Your task to perform on an android device: uninstall "ZOOM Cloud Meetings" Image 0: 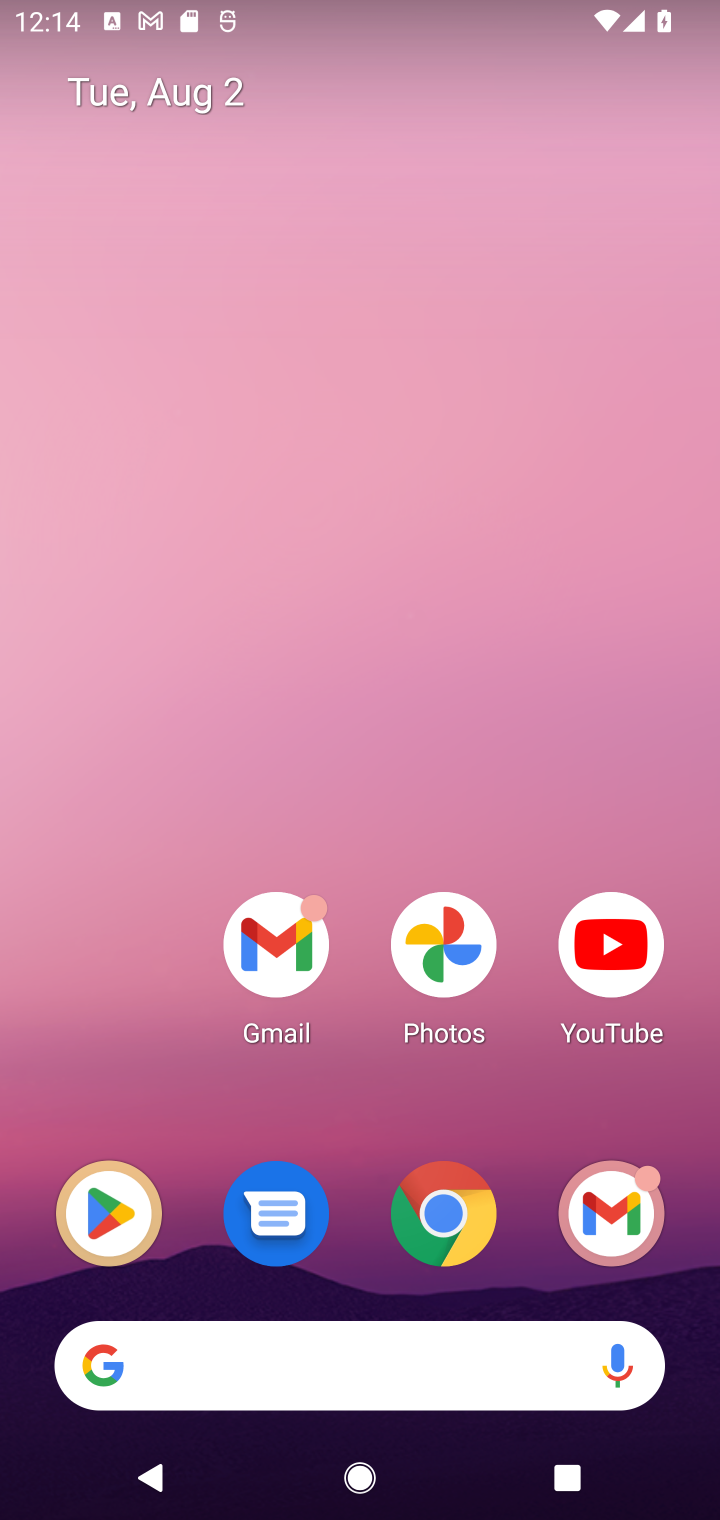
Step 0: click (126, 1213)
Your task to perform on an android device: uninstall "ZOOM Cloud Meetings" Image 1: 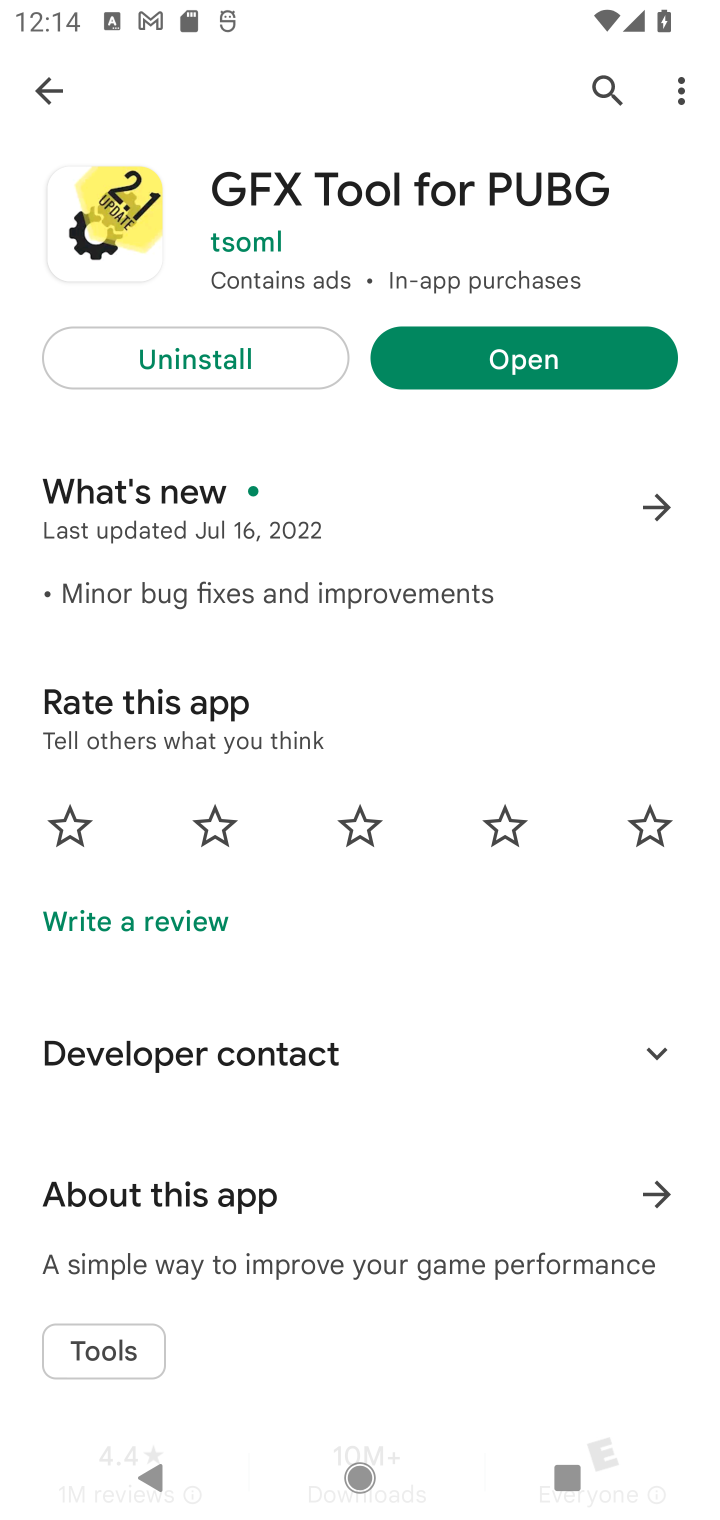
Step 1: click (52, 88)
Your task to perform on an android device: uninstall "ZOOM Cloud Meetings" Image 2: 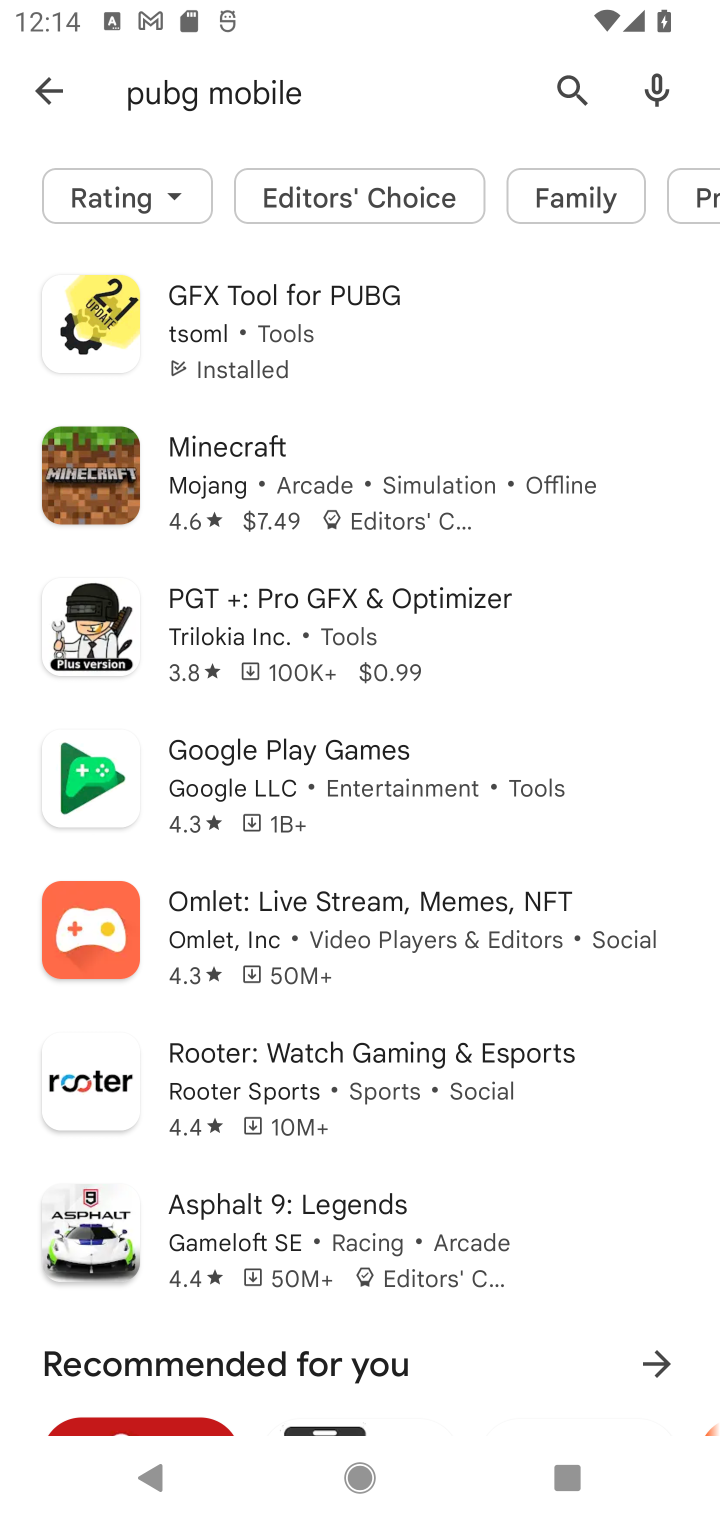
Step 2: click (52, 88)
Your task to perform on an android device: uninstall "ZOOM Cloud Meetings" Image 3: 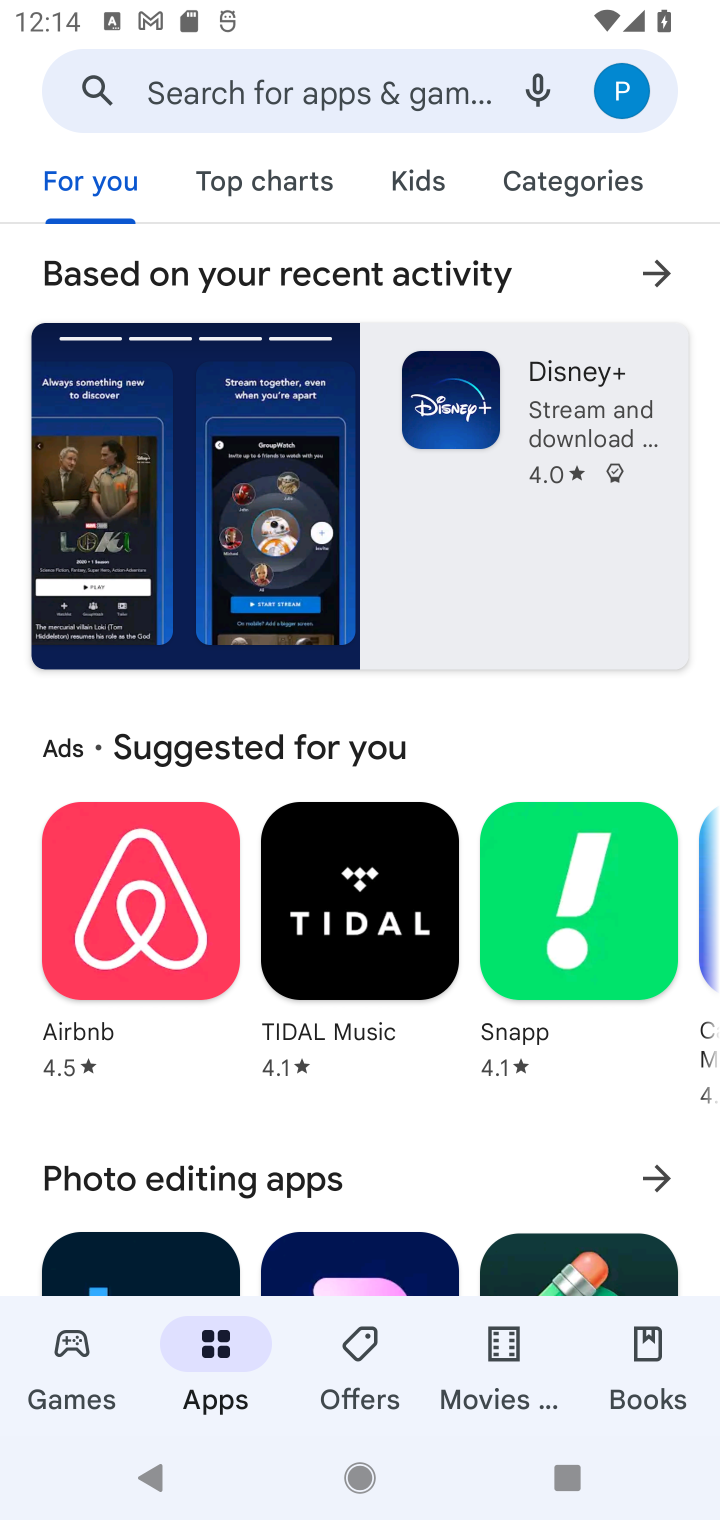
Step 3: click (256, 94)
Your task to perform on an android device: uninstall "ZOOM Cloud Meetings" Image 4: 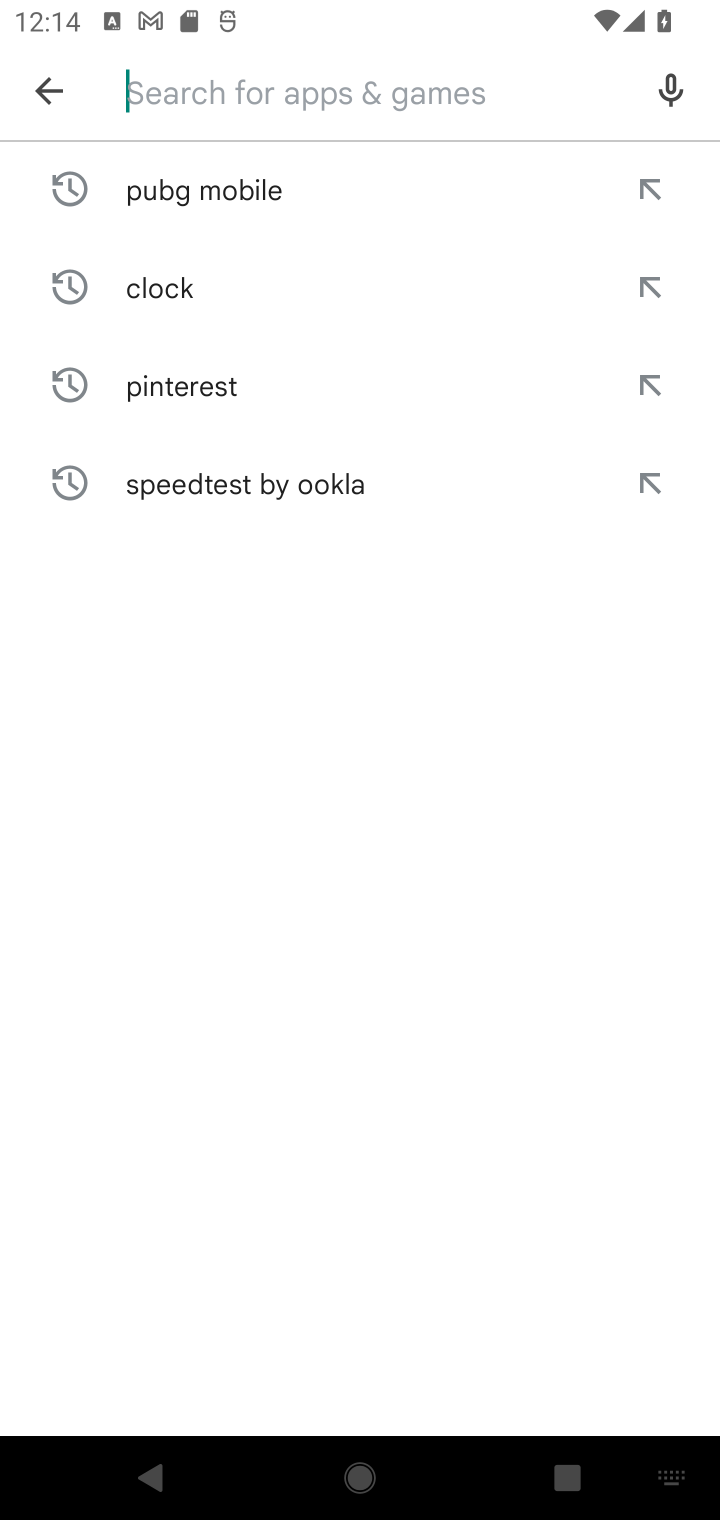
Step 4: type "ZOOM Cloud Meetings"
Your task to perform on an android device: uninstall "ZOOM Cloud Meetings" Image 5: 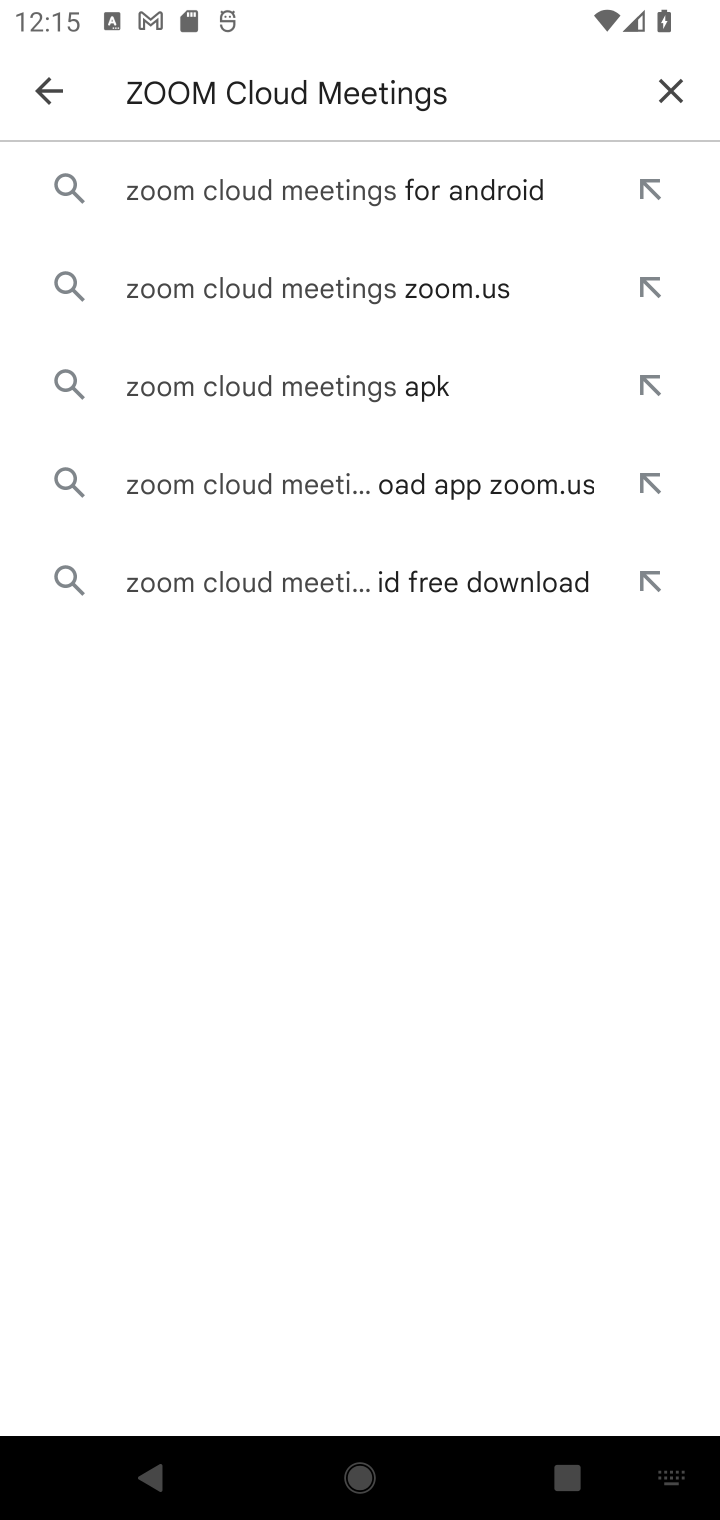
Step 5: click (351, 210)
Your task to perform on an android device: uninstall "ZOOM Cloud Meetings" Image 6: 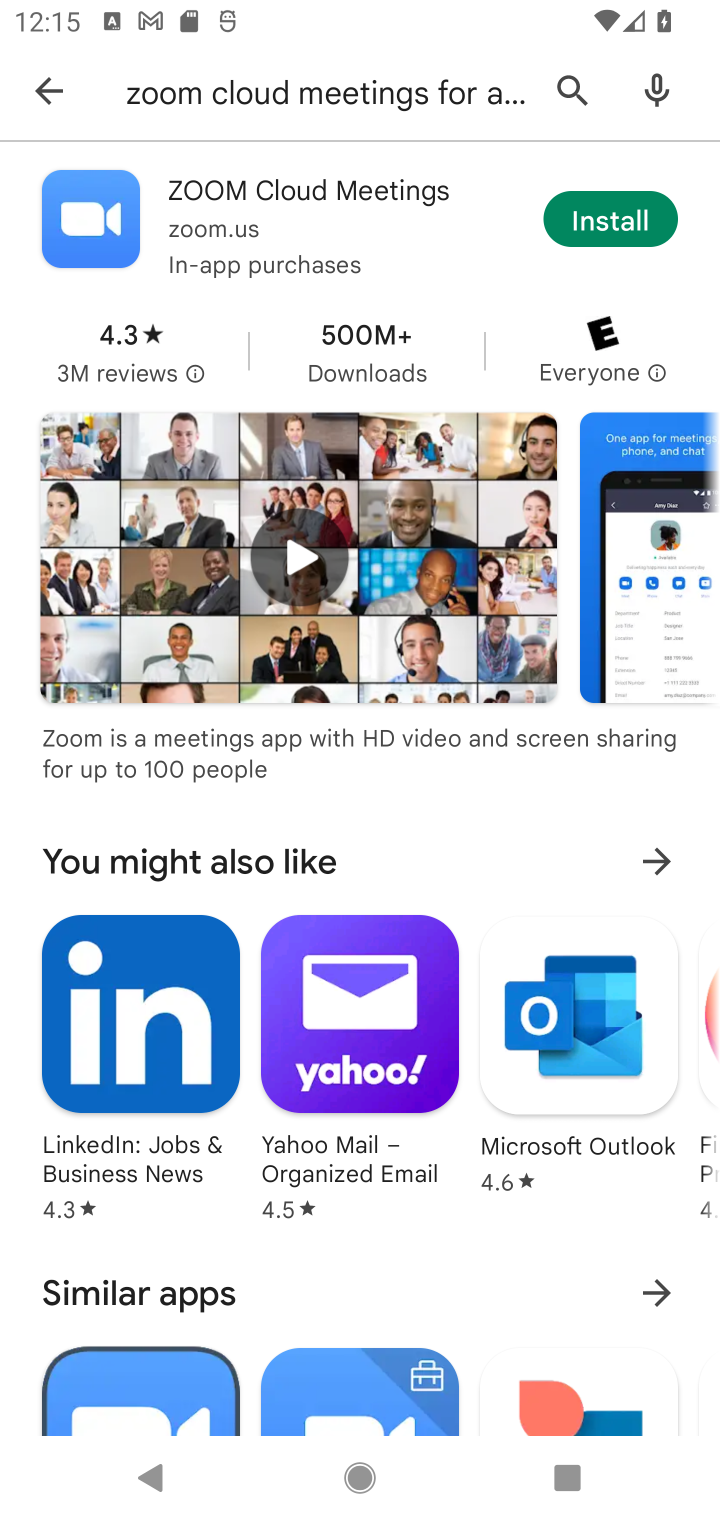
Step 6: click (617, 201)
Your task to perform on an android device: uninstall "ZOOM Cloud Meetings" Image 7: 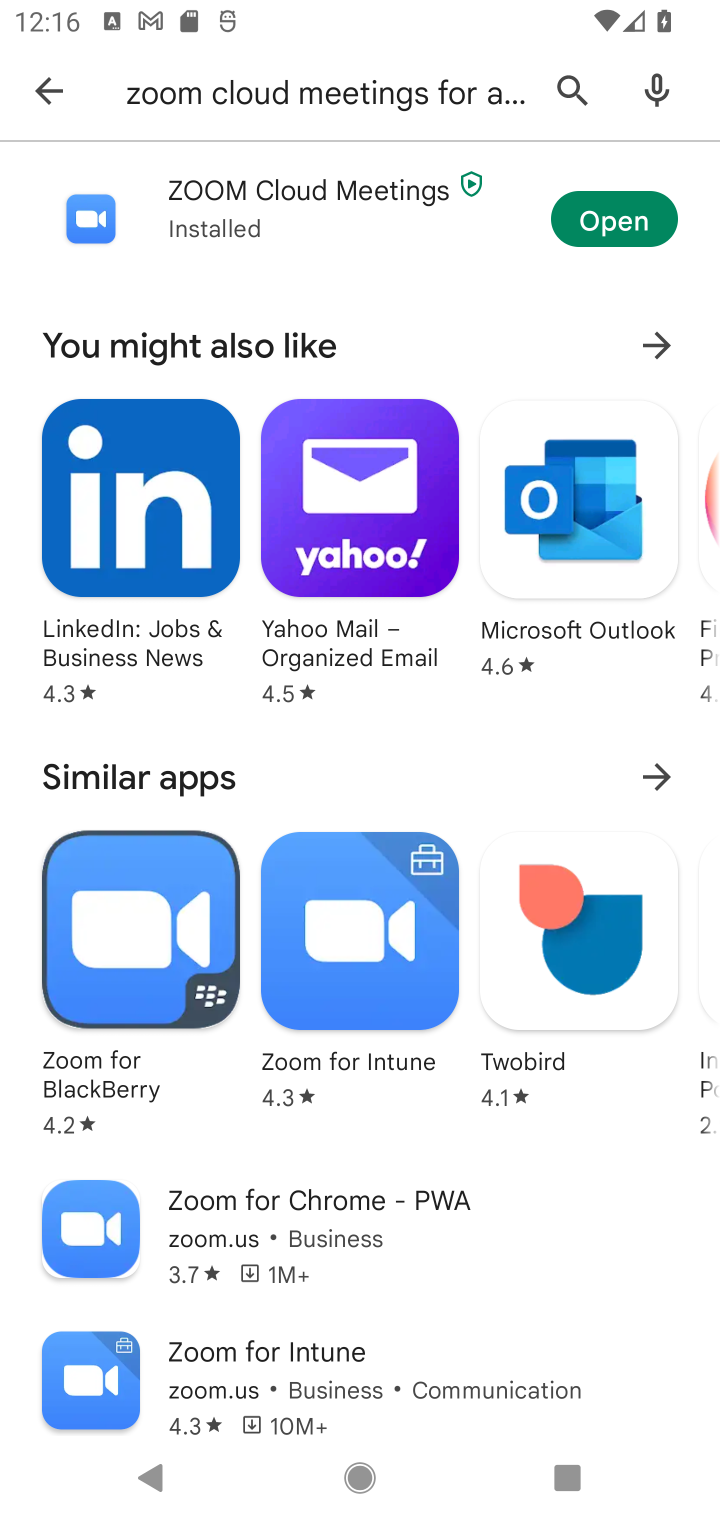
Step 7: task complete